Your task to perform on an android device: Go to eBay Image 0: 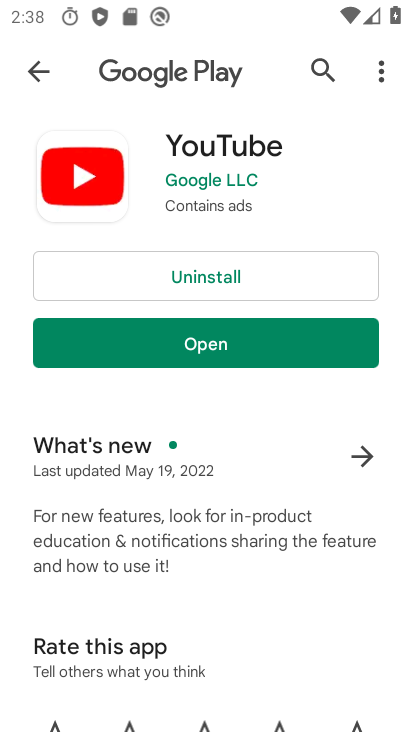
Step 0: press home button
Your task to perform on an android device: Go to eBay Image 1: 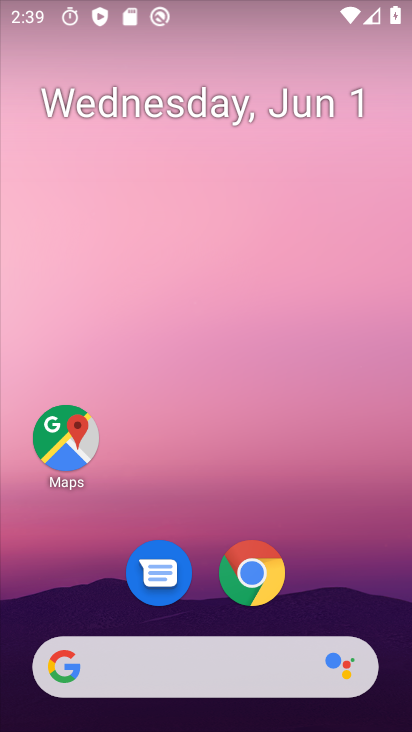
Step 1: click (235, 566)
Your task to perform on an android device: Go to eBay Image 2: 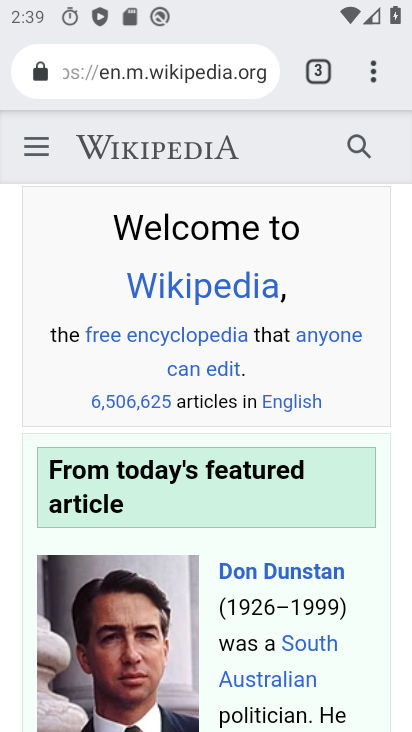
Step 2: click (323, 80)
Your task to perform on an android device: Go to eBay Image 3: 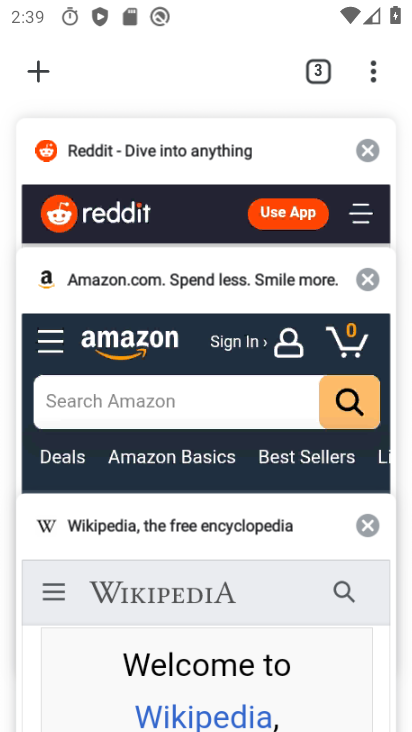
Step 3: click (42, 58)
Your task to perform on an android device: Go to eBay Image 4: 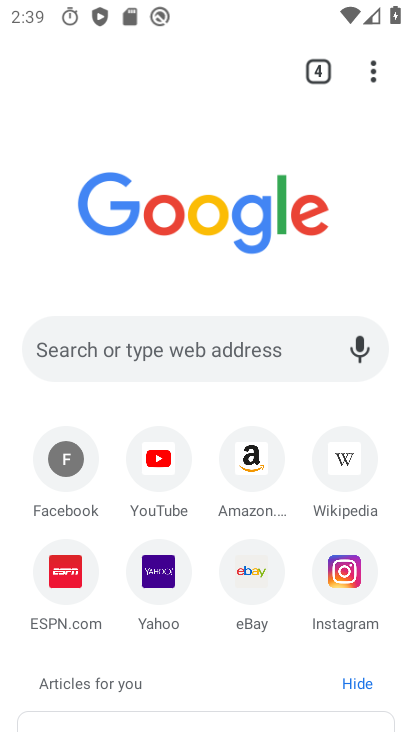
Step 4: click (242, 569)
Your task to perform on an android device: Go to eBay Image 5: 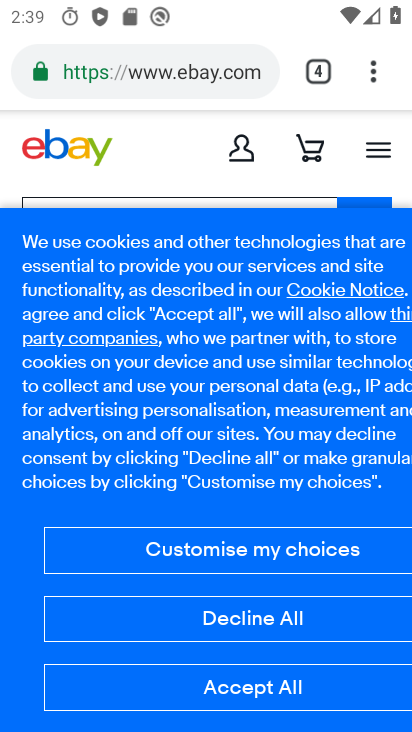
Step 5: task complete